Your task to perform on an android device: see creations saved in the google photos Image 0: 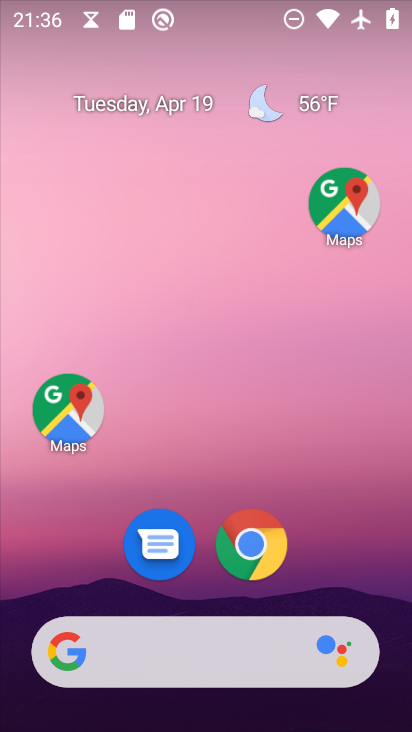
Step 0: press home button
Your task to perform on an android device: see creations saved in the google photos Image 1: 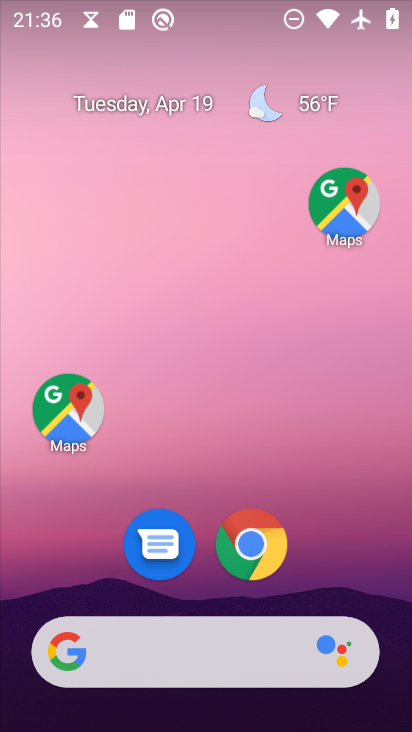
Step 1: drag from (249, 320) to (315, 53)
Your task to perform on an android device: see creations saved in the google photos Image 2: 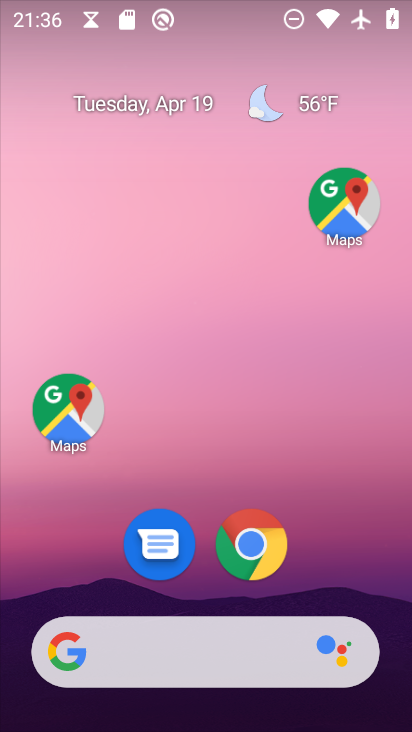
Step 2: drag from (137, 654) to (307, 71)
Your task to perform on an android device: see creations saved in the google photos Image 3: 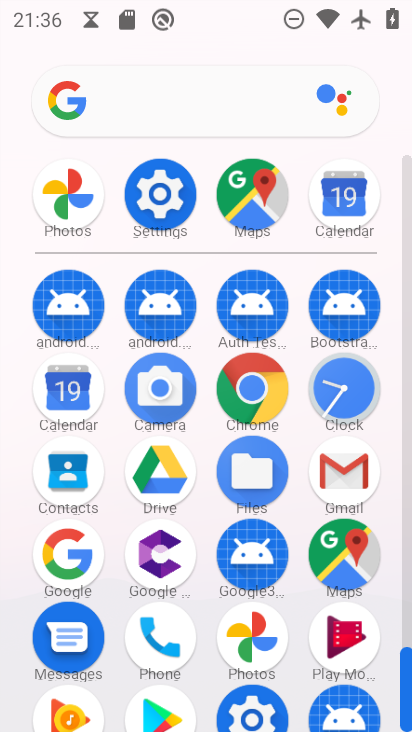
Step 3: click (249, 635)
Your task to perform on an android device: see creations saved in the google photos Image 4: 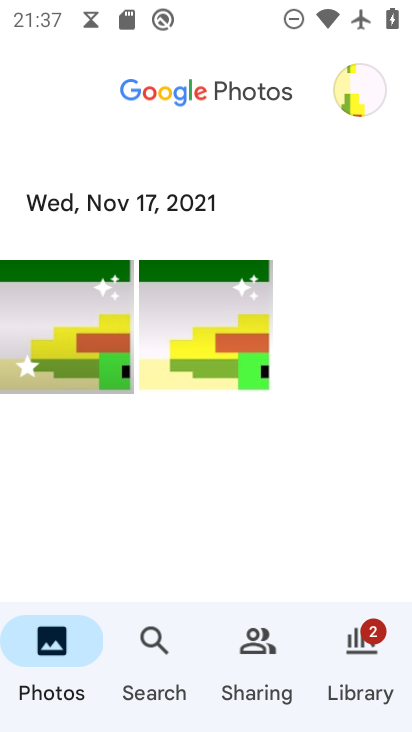
Step 4: task complete